Your task to perform on an android device: change notification settings in the gmail app Image 0: 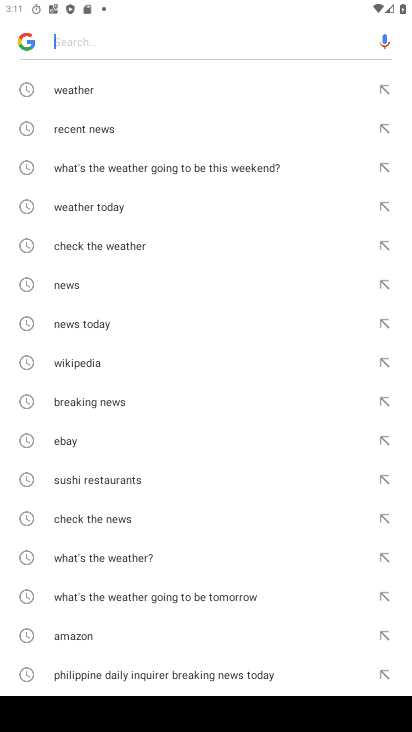
Step 0: press back button
Your task to perform on an android device: change notification settings in the gmail app Image 1: 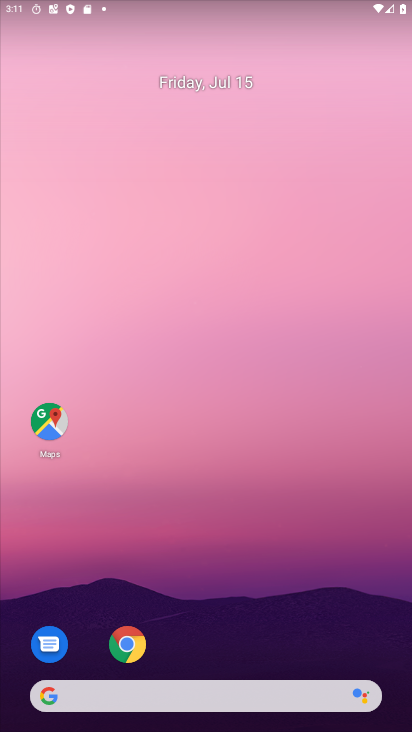
Step 1: drag from (213, 668) to (300, 5)
Your task to perform on an android device: change notification settings in the gmail app Image 2: 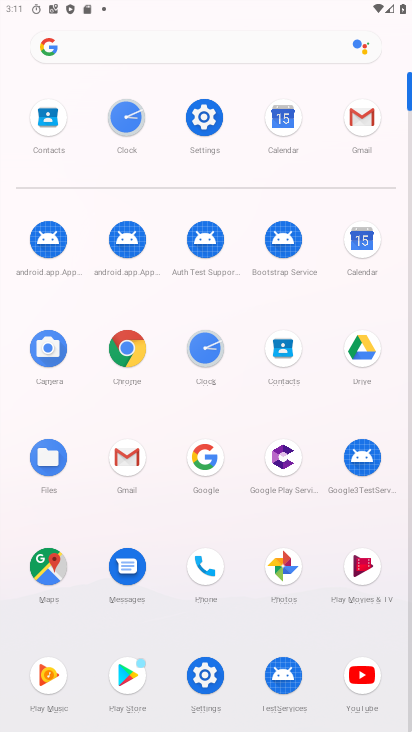
Step 2: click (357, 111)
Your task to perform on an android device: change notification settings in the gmail app Image 3: 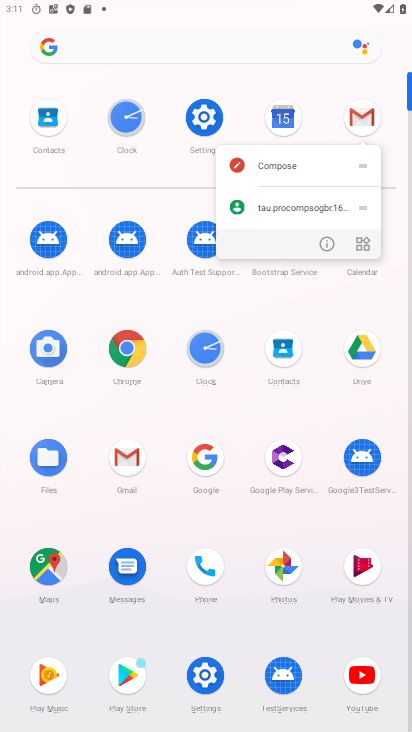
Step 3: click (332, 246)
Your task to perform on an android device: change notification settings in the gmail app Image 4: 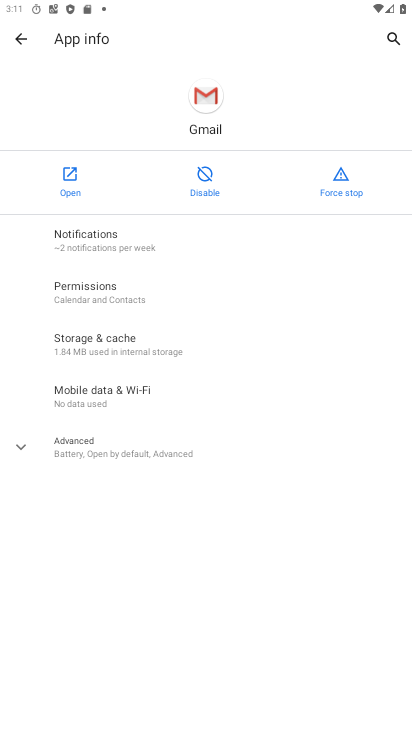
Step 4: click (114, 236)
Your task to perform on an android device: change notification settings in the gmail app Image 5: 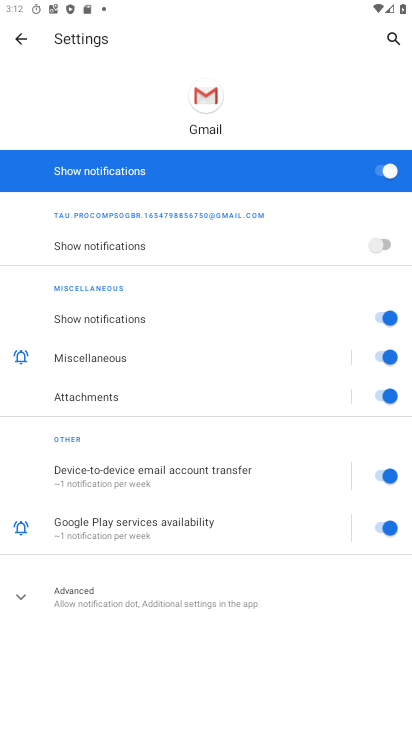
Step 5: click (386, 238)
Your task to perform on an android device: change notification settings in the gmail app Image 6: 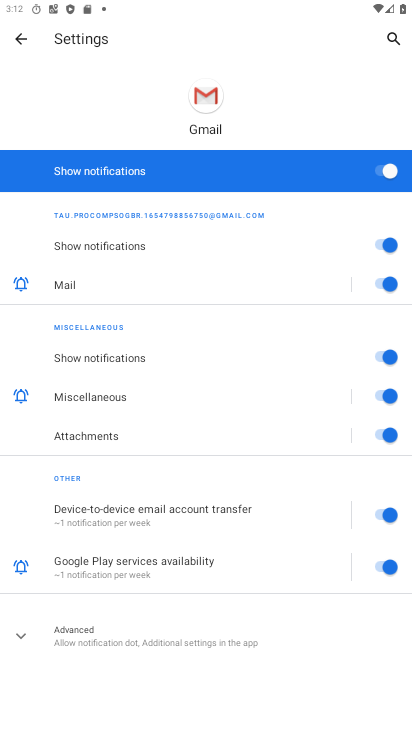
Step 6: task complete